Your task to perform on an android device: read, delete, or share a saved page in the chrome app Image 0: 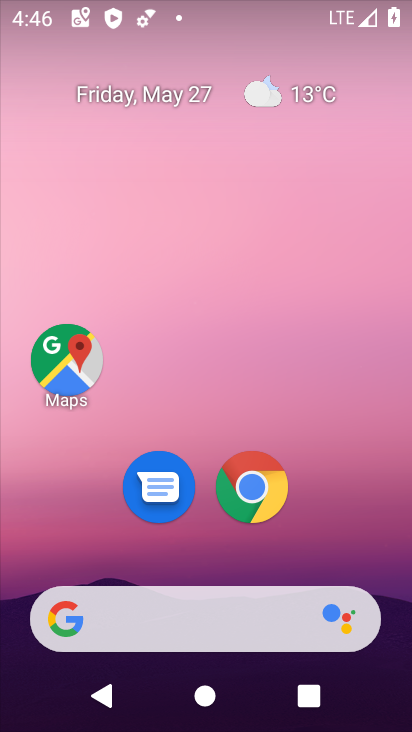
Step 0: click (252, 482)
Your task to perform on an android device: read, delete, or share a saved page in the chrome app Image 1: 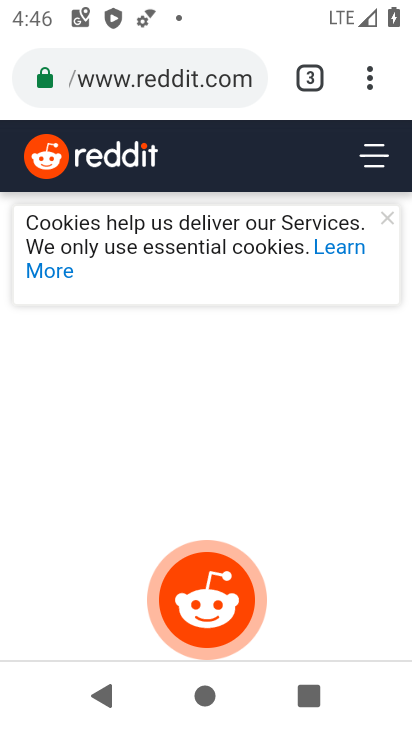
Step 1: task complete